Your task to perform on an android device: change the clock style Image 0: 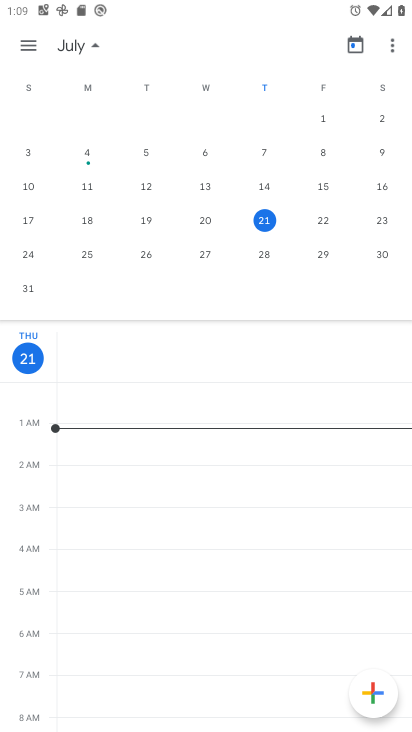
Step 0: press home button
Your task to perform on an android device: change the clock style Image 1: 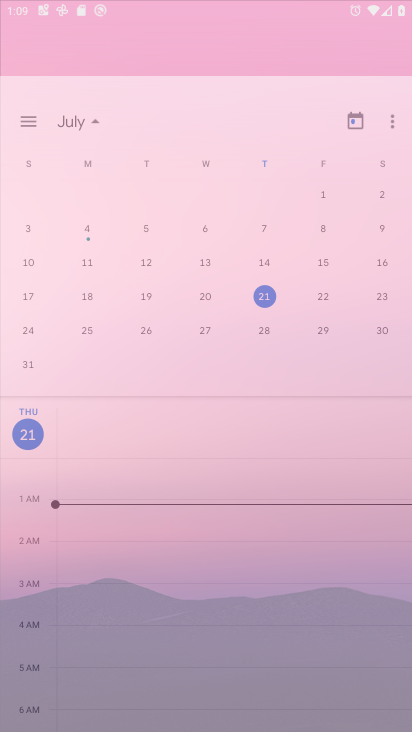
Step 1: drag from (108, 550) to (227, 75)
Your task to perform on an android device: change the clock style Image 2: 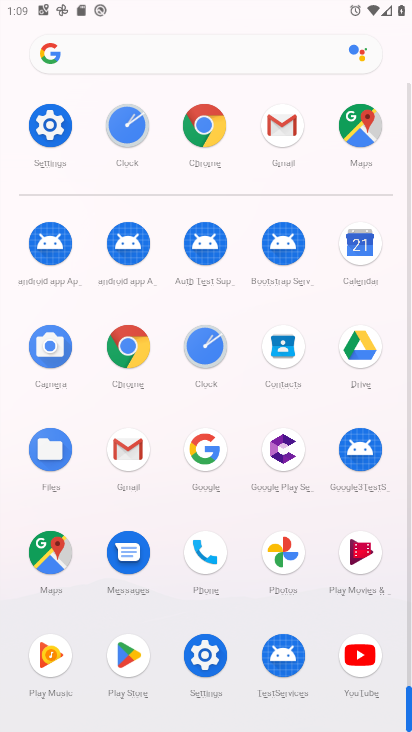
Step 2: click (215, 356)
Your task to perform on an android device: change the clock style Image 3: 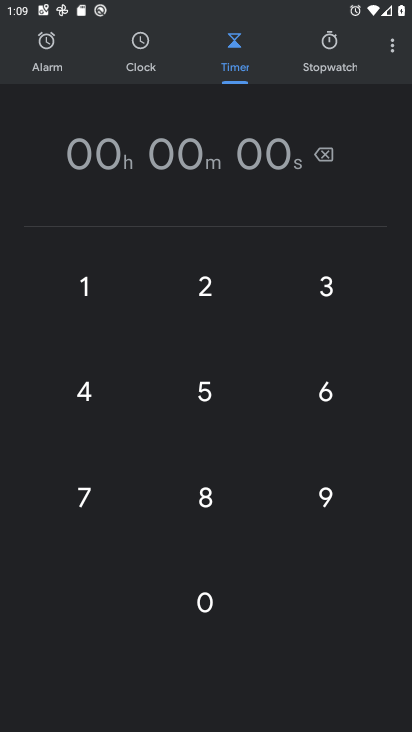
Step 3: drag from (384, 42) to (317, 93)
Your task to perform on an android device: change the clock style Image 4: 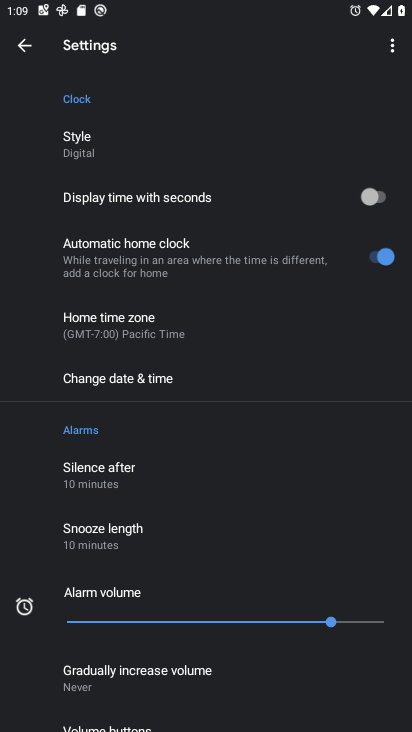
Step 4: click (105, 142)
Your task to perform on an android device: change the clock style Image 5: 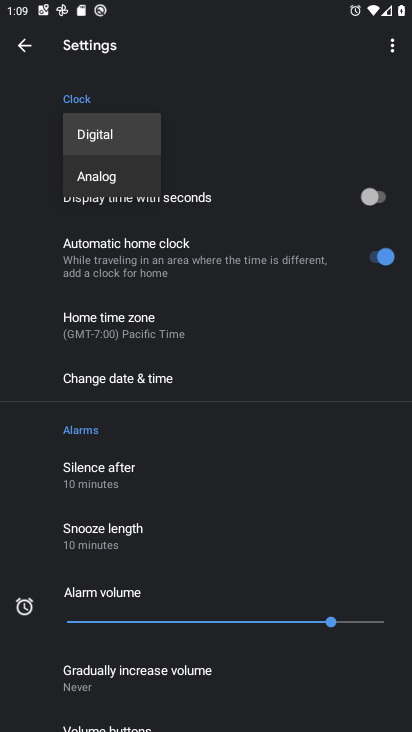
Step 5: click (110, 170)
Your task to perform on an android device: change the clock style Image 6: 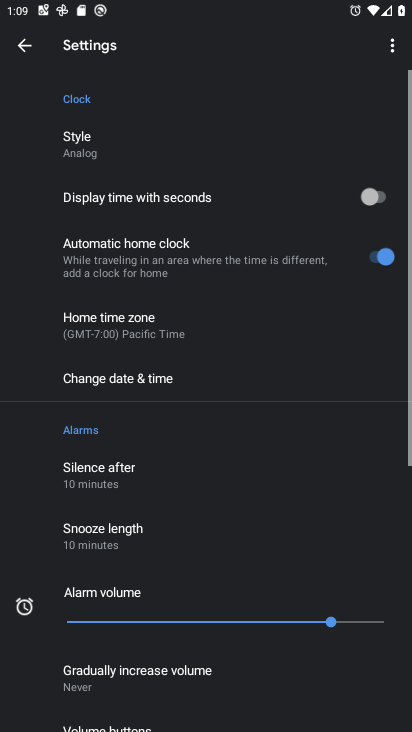
Step 6: task complete